Your task to perform on an android device: toggle wifi Image 0: 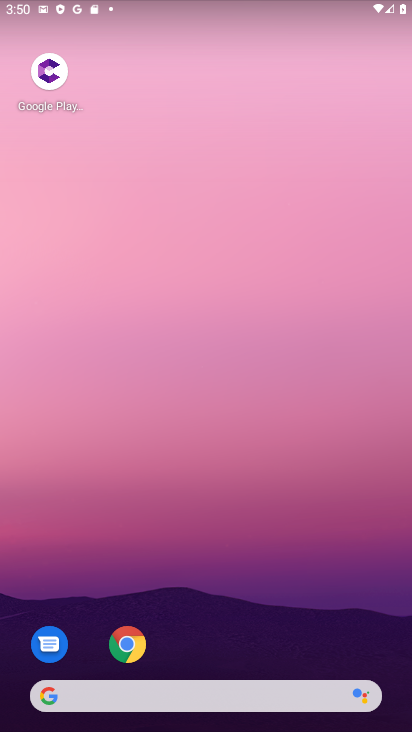
Step 0: drag from (193, 729) to (193, 43)
Your task to perform on an android device: toggle wifi Image 1: 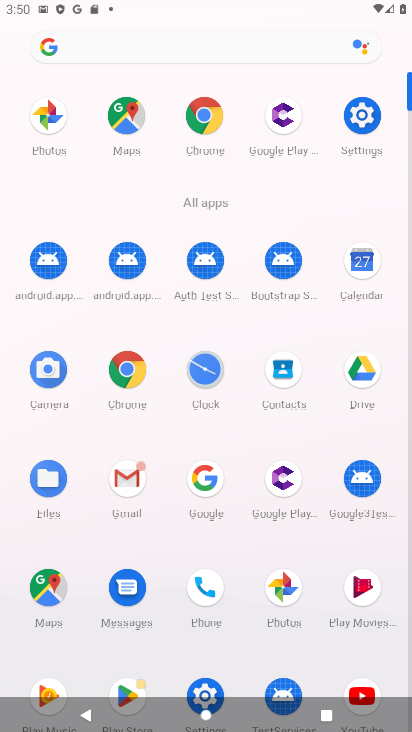
Step 1: click (366, 124)
Your task to perform on an android device: toggle wifi Image 2: 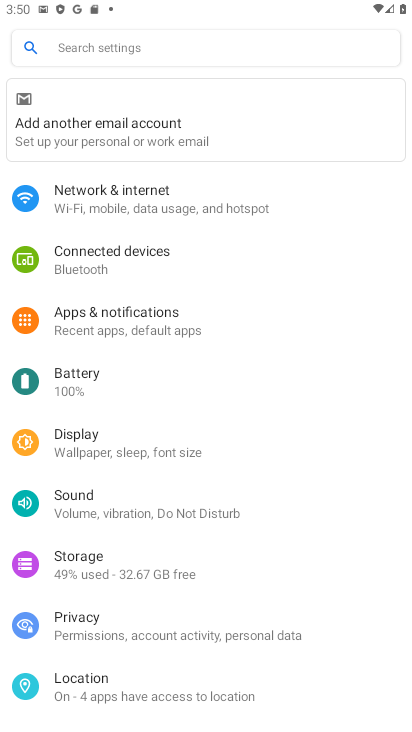
Step 2: click (107, 195)
Your task to perform on an android device: toggle wifi Image 3: 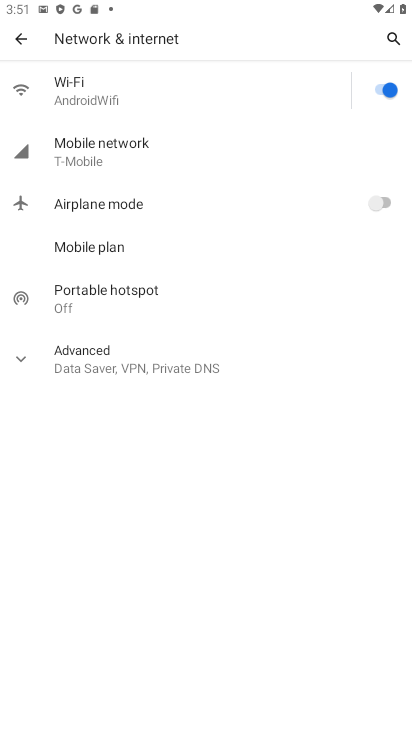
Step 3: click (378, 86)
Your task to perform on an android device: toggle wifi Image 4: 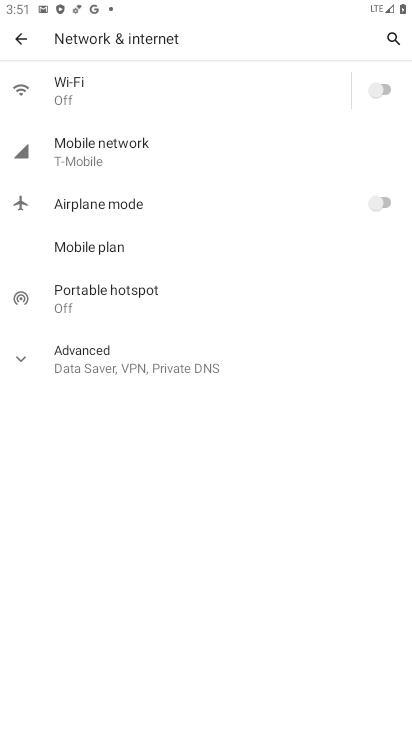
Step 4: task complete